Your task to perform on an android device: change the upload size in google photos Image 0: 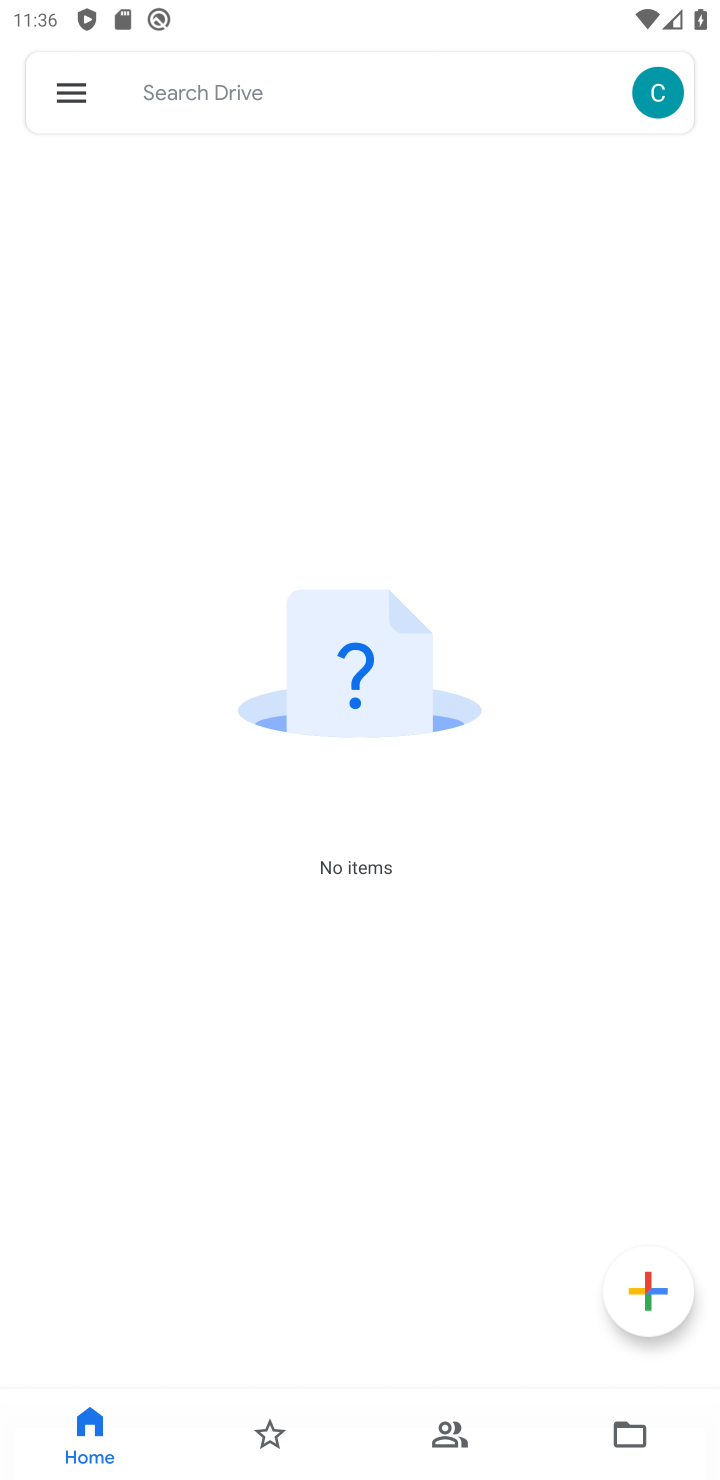
Step 0: press home button
Your task to perform on an android device: change the upload size in google photos Image 1: 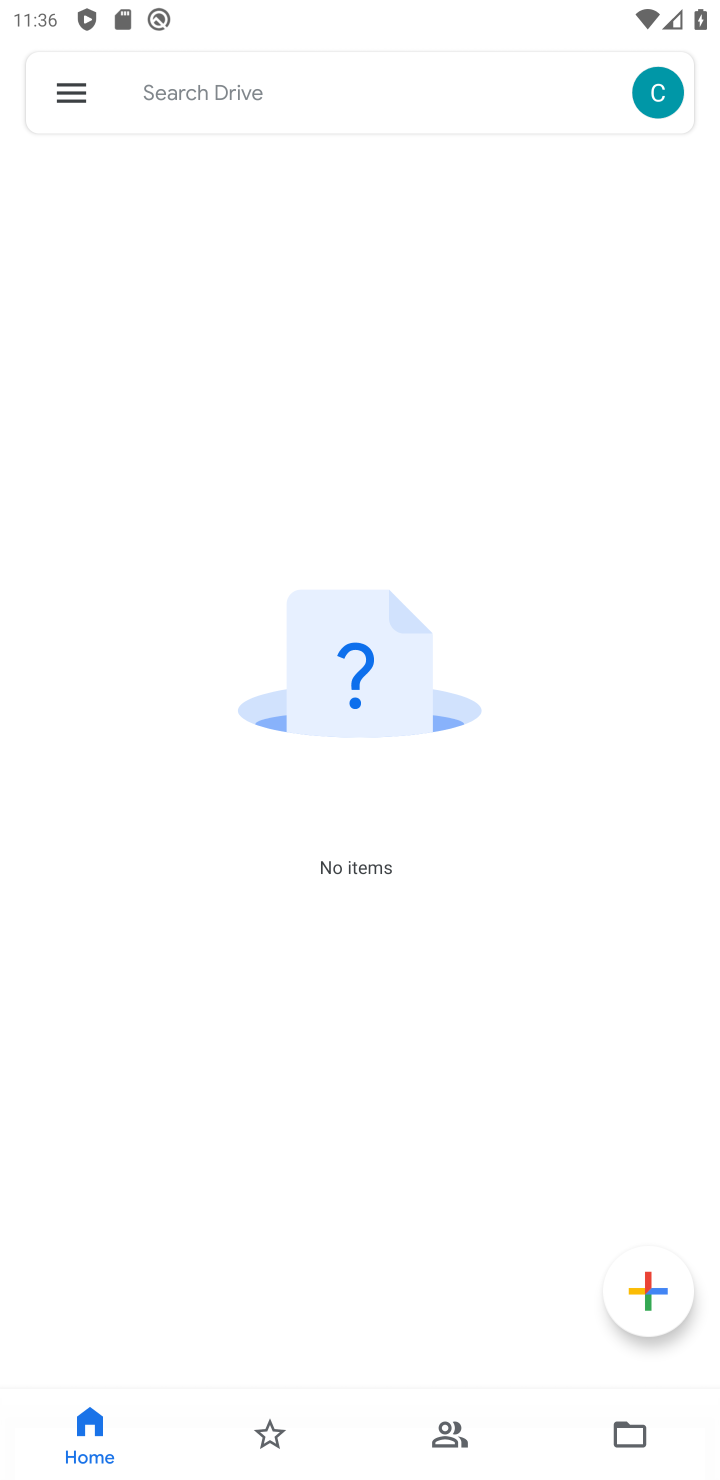
Step 1: press home button
Your task to perform on an android device: change the upload size in google photos Image 2: 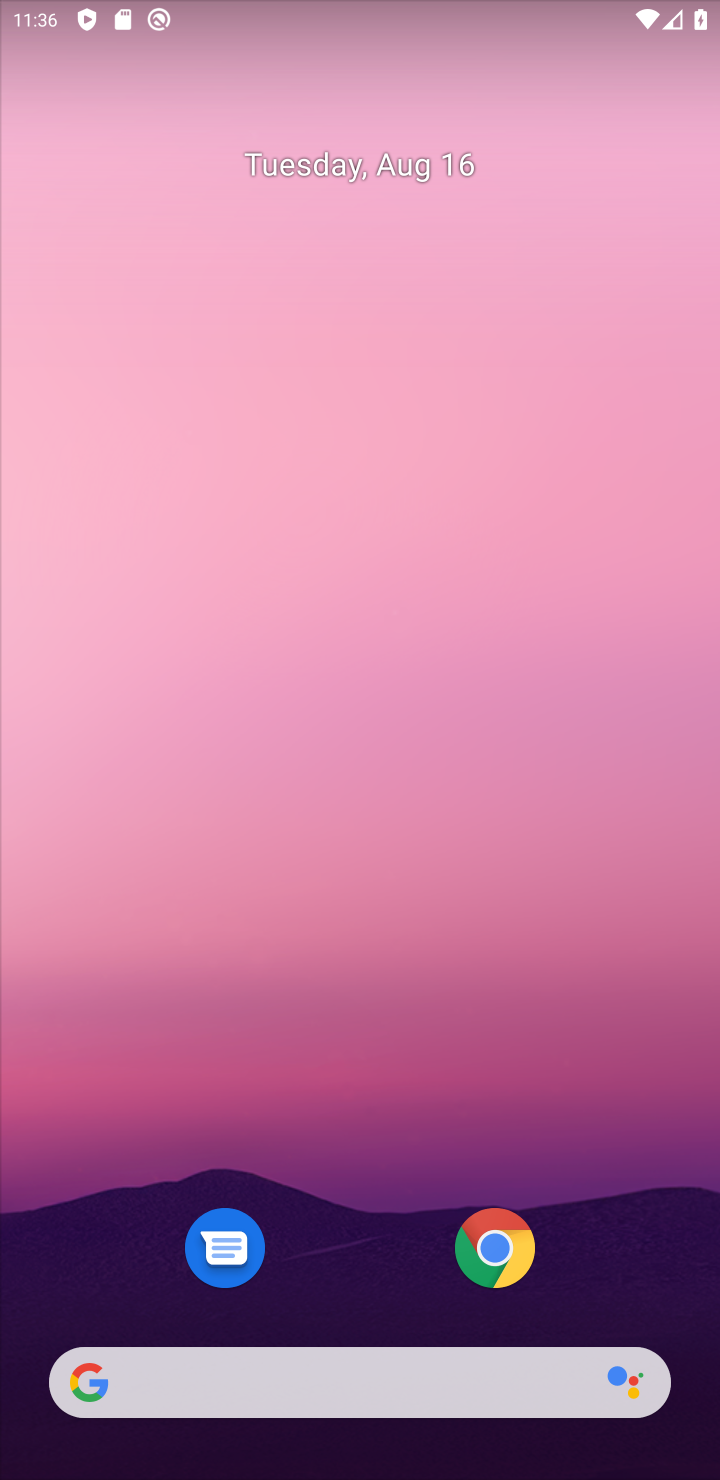
Step 2: drag from (310, 1144) to (341, 364)
Your task to perform on an android device: change the upload size in google photos Image 3: 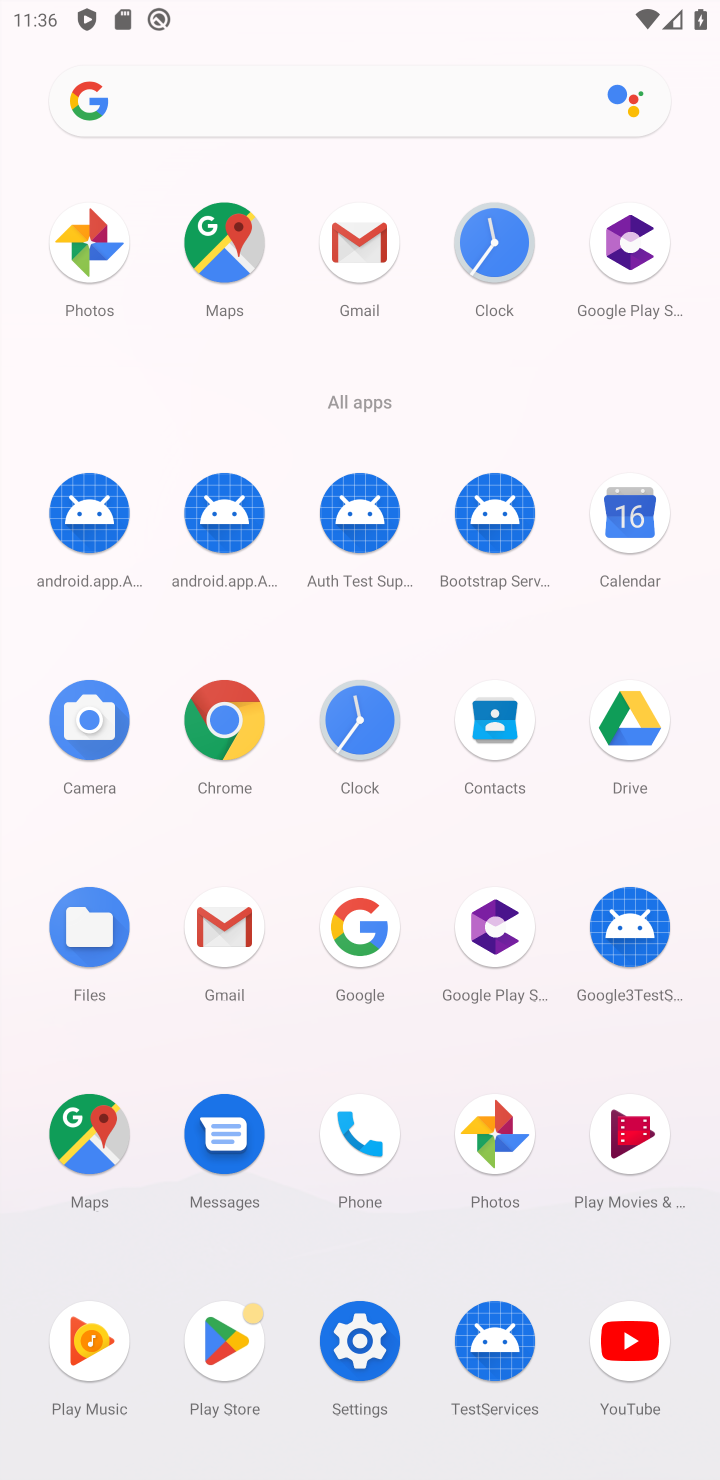
Step 3: click (216, 709)
Your task to perform on an android device: change the upload size in google photos Image 4: 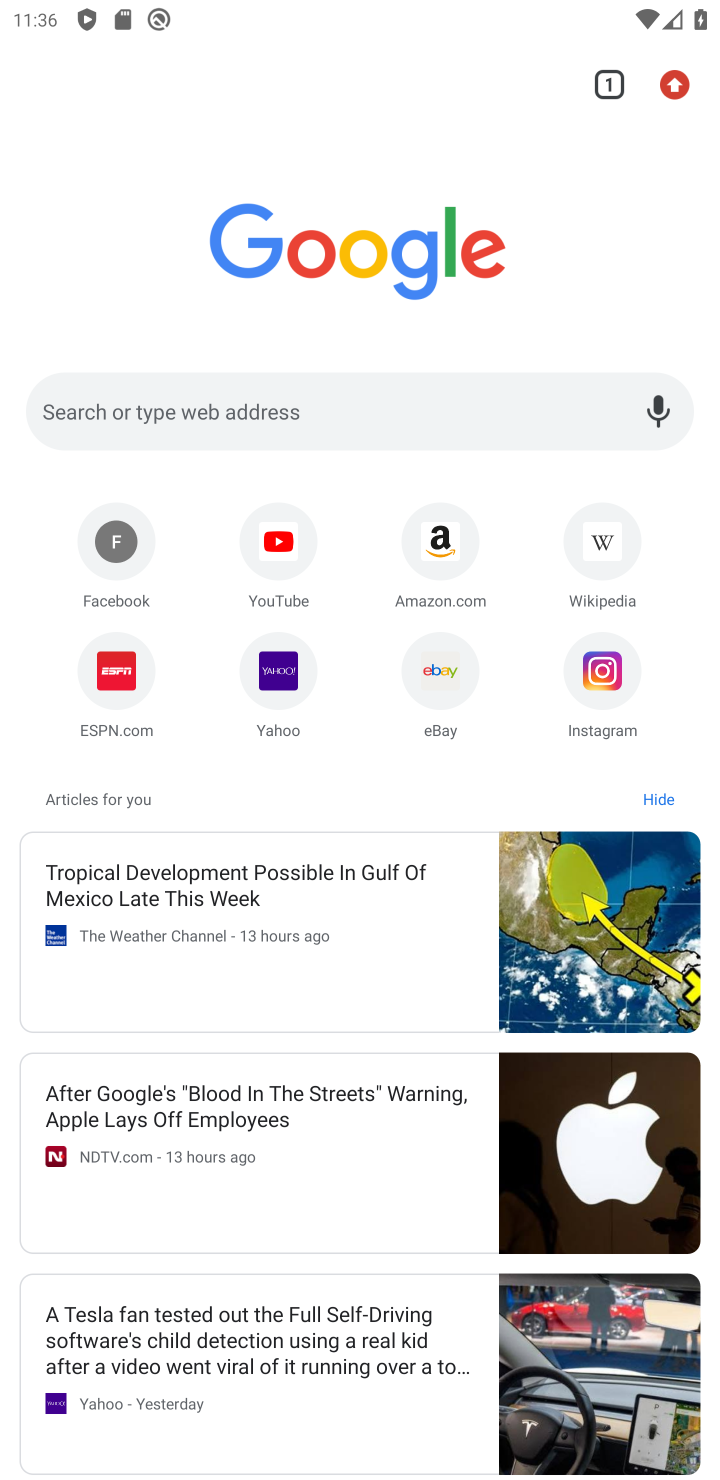
Step 4: task complete